Your task to perform on an android device: Open display settings Image 0: 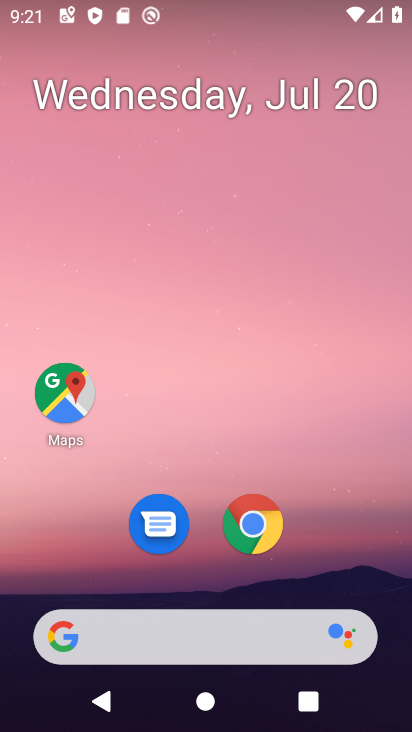
Step 0: press home button
Your task to perform on an android device: Open display settings Image 1: 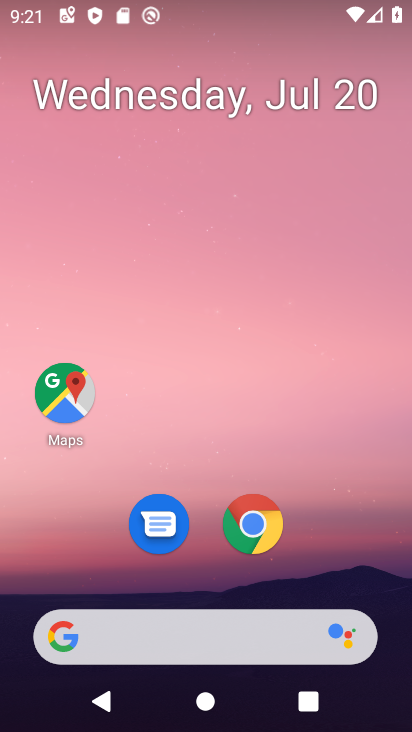
Step 1: drag from (210, 635) to (308, 87)
Your task to perform on an android device: Open display settings Image 2: 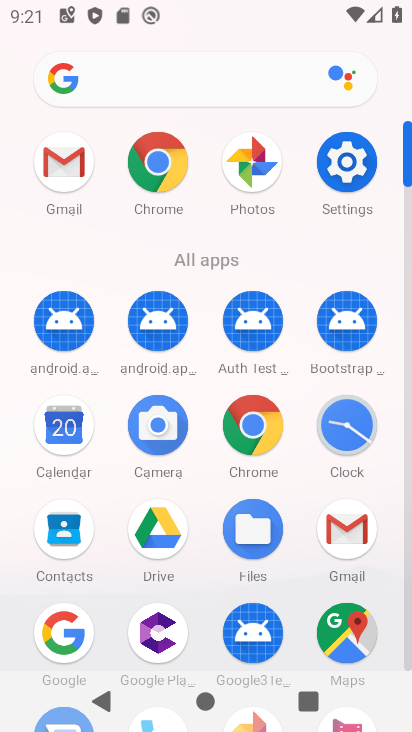
Step 2: click (343, 166)
Your task to perform on an android device: Open display settings Image 3: 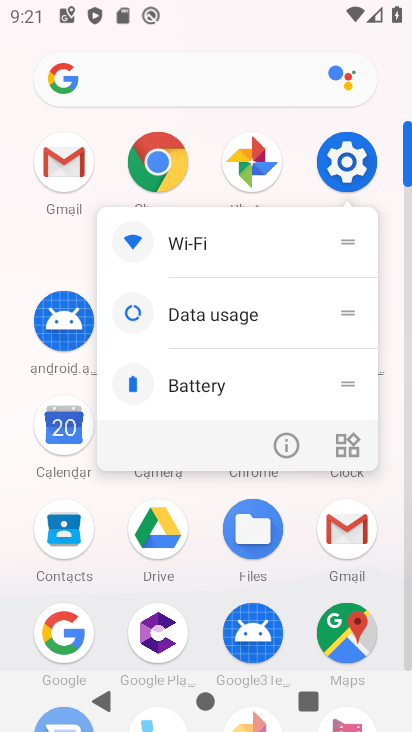
Step 3: click (346, 166)
Your task to perform on an android device: Open display settings Image 4: 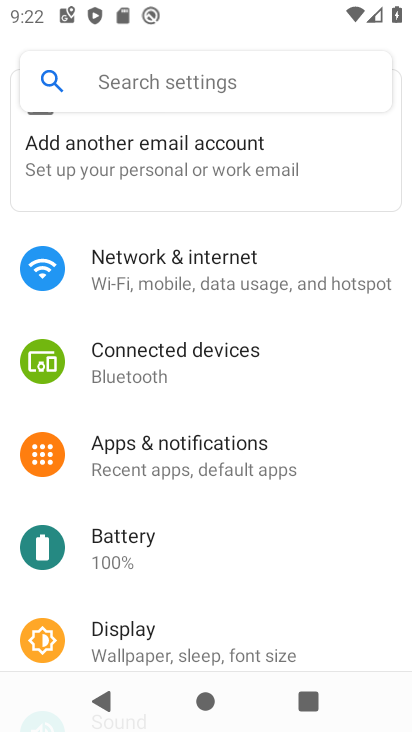
Step 4: click (136, 623)
Your task to perform on an android device: Open display settings Image 5: 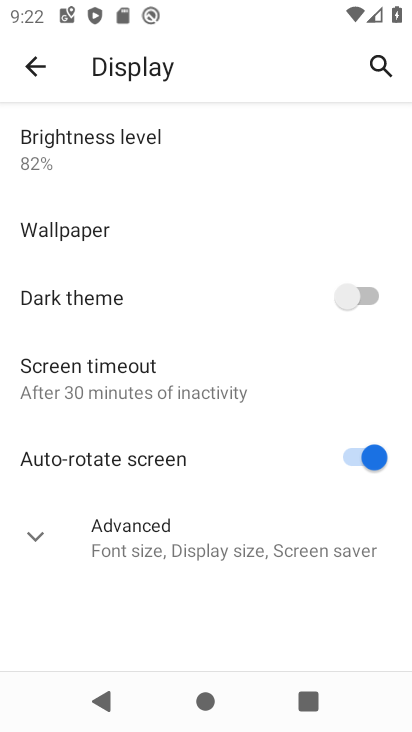
Step 5: task complete